Your task to perform on an android device: turn off sleep mode Image 0: 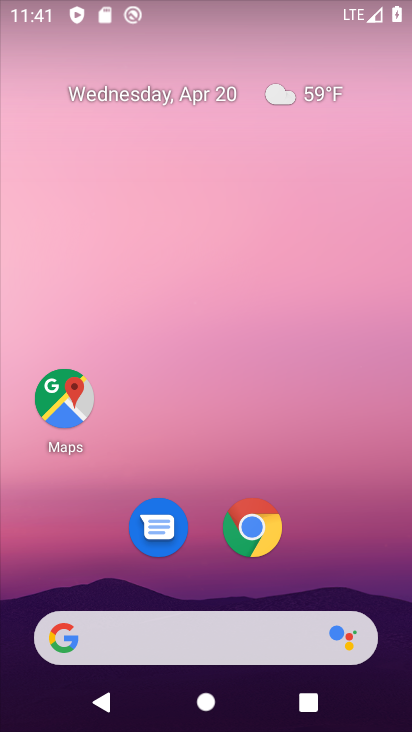
Step 0: drag from (357, 544) to (379, 233)
Your task to perform on an android device: turn off sleep mode Image 1: 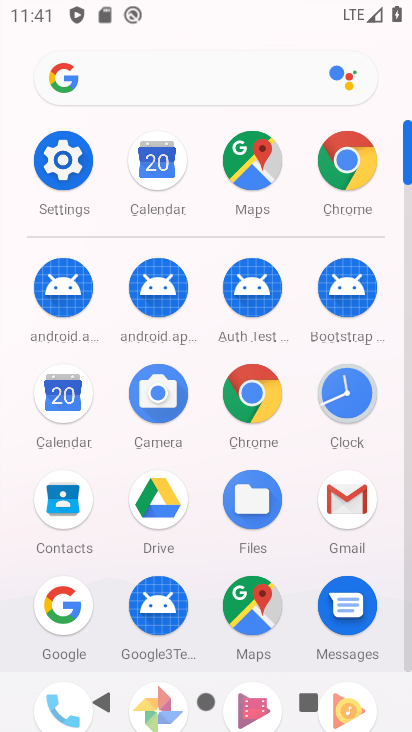
Step 1: click (58, 181)
Your task to perform on an android device: turn off sleep mode Image 2: 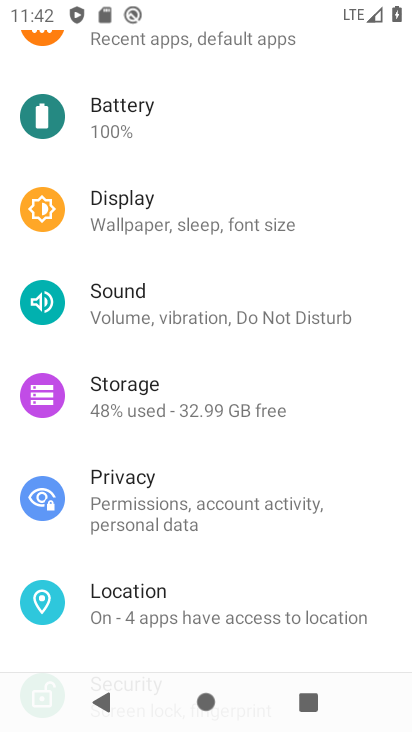
Step 2: drag from (216, 166) to (272, 474)
Your task to perform on an android device: turn off sleep mode Image 3: 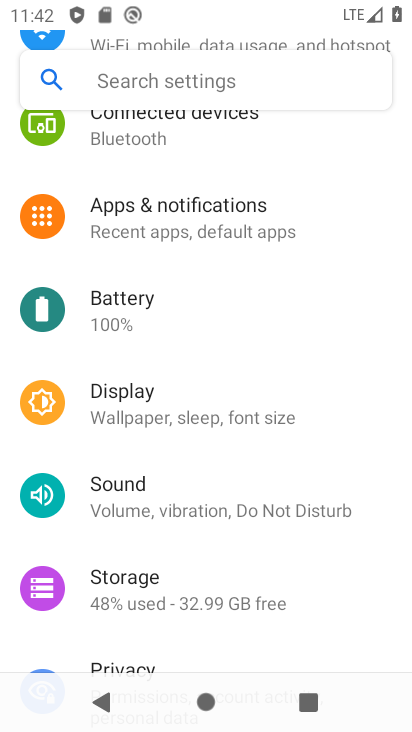
Step 3: click (263, 85)
Your task to perform on an android device: turn off sleep mode Image 4: 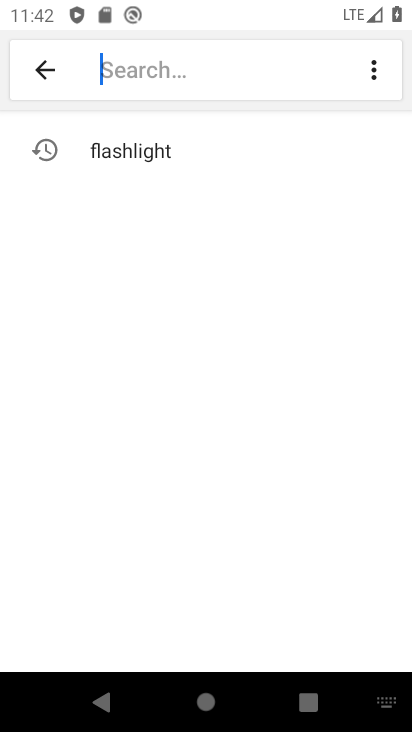
Step 4: type "sleep mode"
Your task to perform on an android device: turn off sleep mode Image 5: 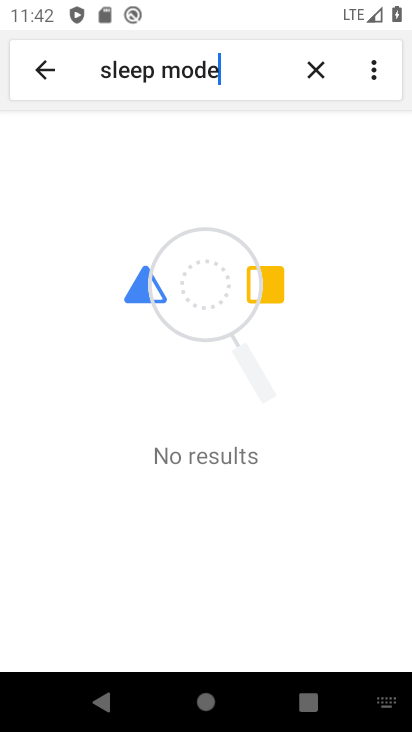
Step 5: task complete